Your task to perform on an android device: Turn on the flashlight Image 0: 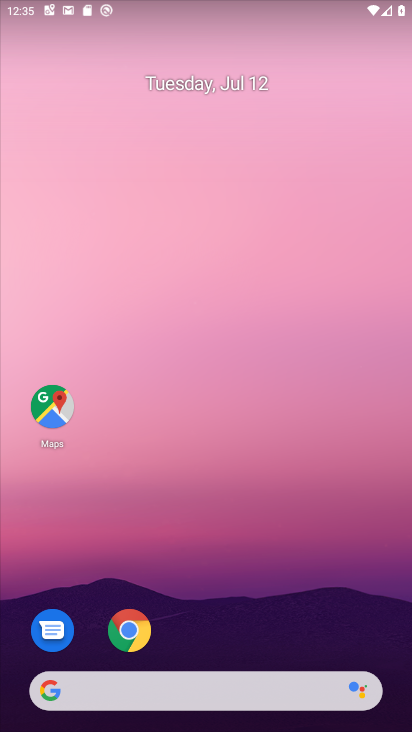
Step 0: drag from (203, 640) to (267, 71)
Your task to perform on an android device: Turn on the flashlight Image 1: 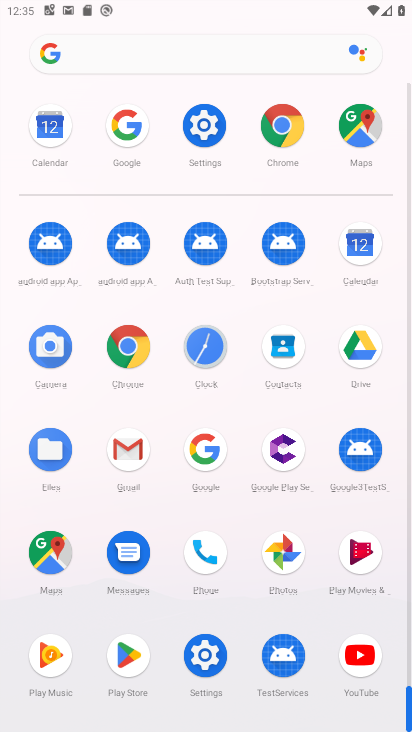
Step 1: task complete